Your task to perform on an android device: toggle pop-ups in chrome Image 0: 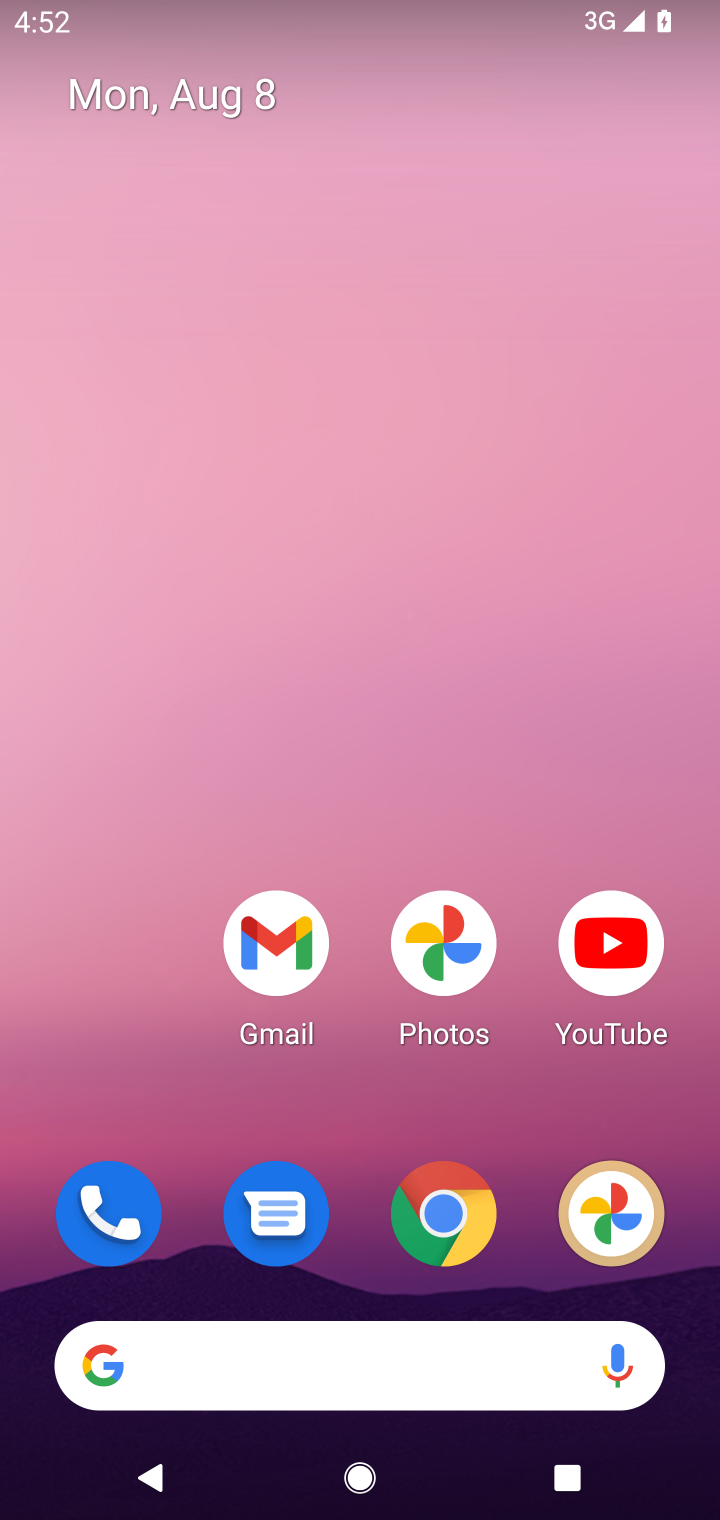
Step 0: click (440, 1241)
Your task to perform on an android device: toggle pop-ups in chrome Image 1: 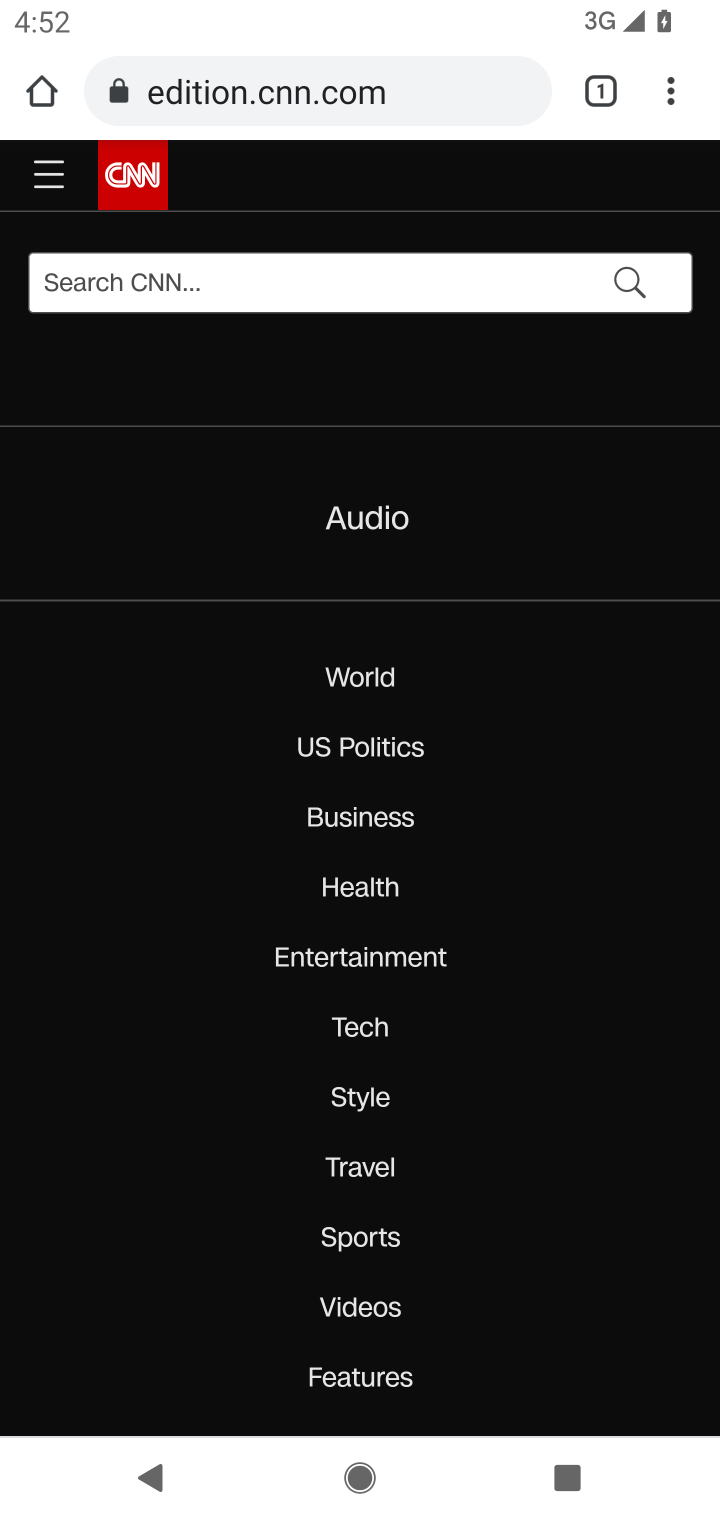
Step 1: click (681, 63)
Your task to perform on an android device: toggle pop-ups in chrome Image 2: 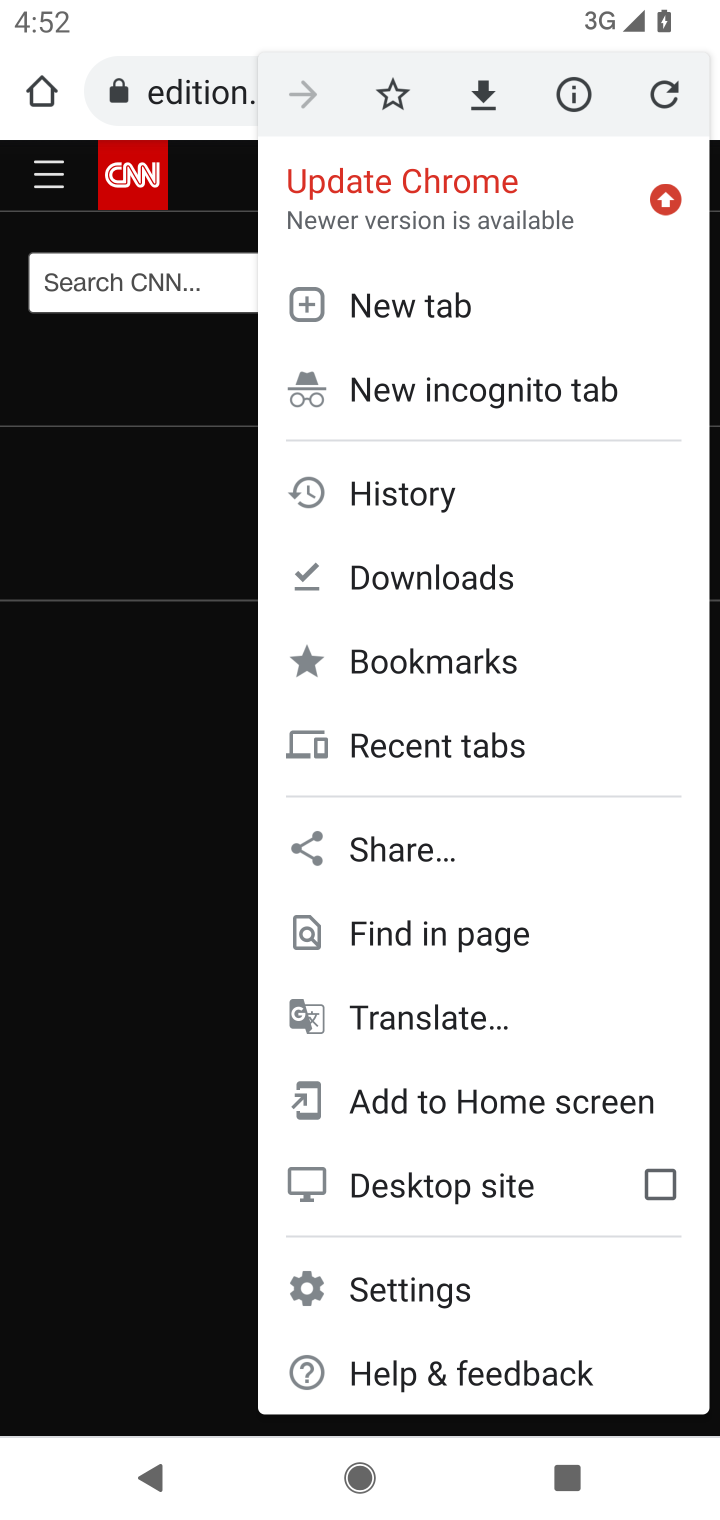
Step 2: click (379, 1286)
Your task to perform on an android device: toggle pop-ups in chrome Image 3: 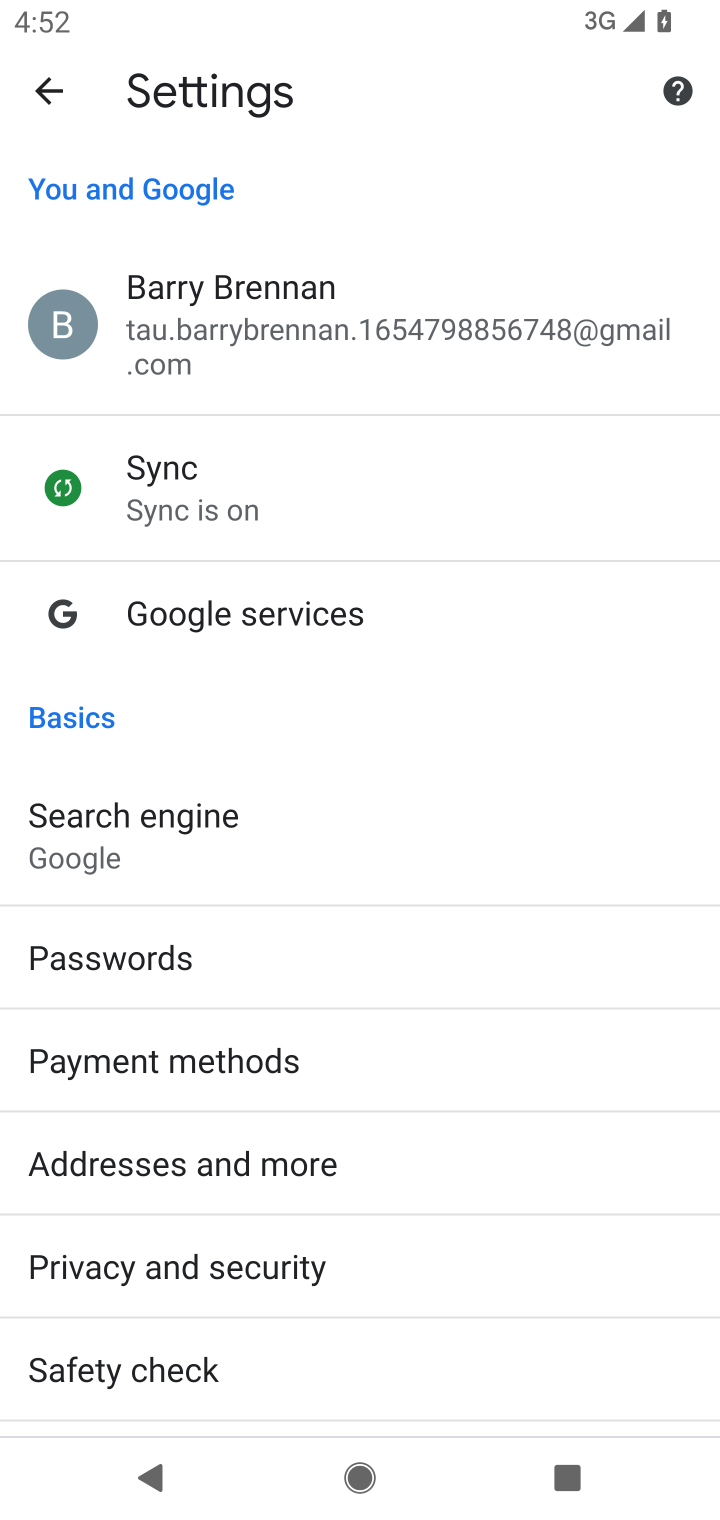
Step 3: drag from (307, 1109) to (307, 471)
Your task to perform on an android device: toggle pop-ups in chrome Image 4: 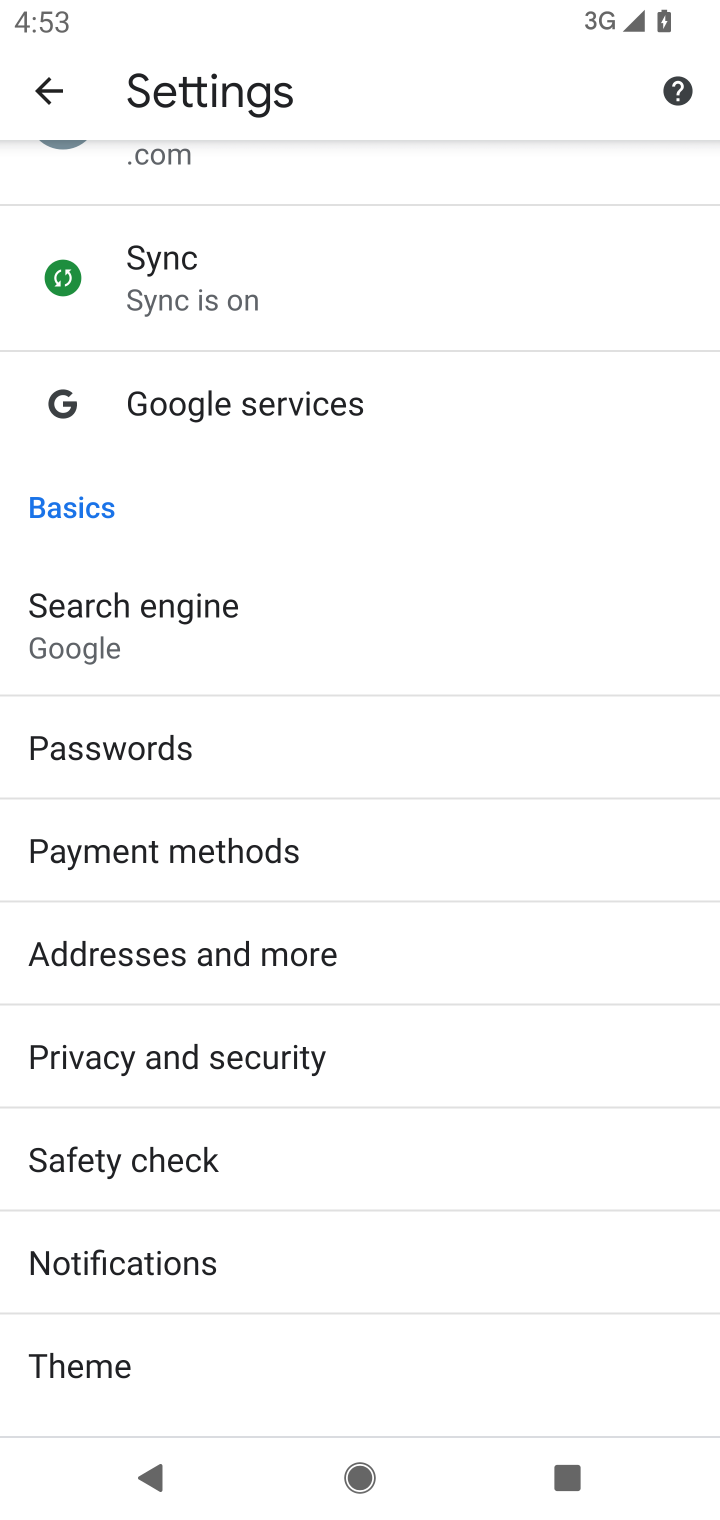
Step 4: drag from (367, 1320) to (324, 607)
Your task to perform on an android device: toggle pop-ups in chrome Image 5: 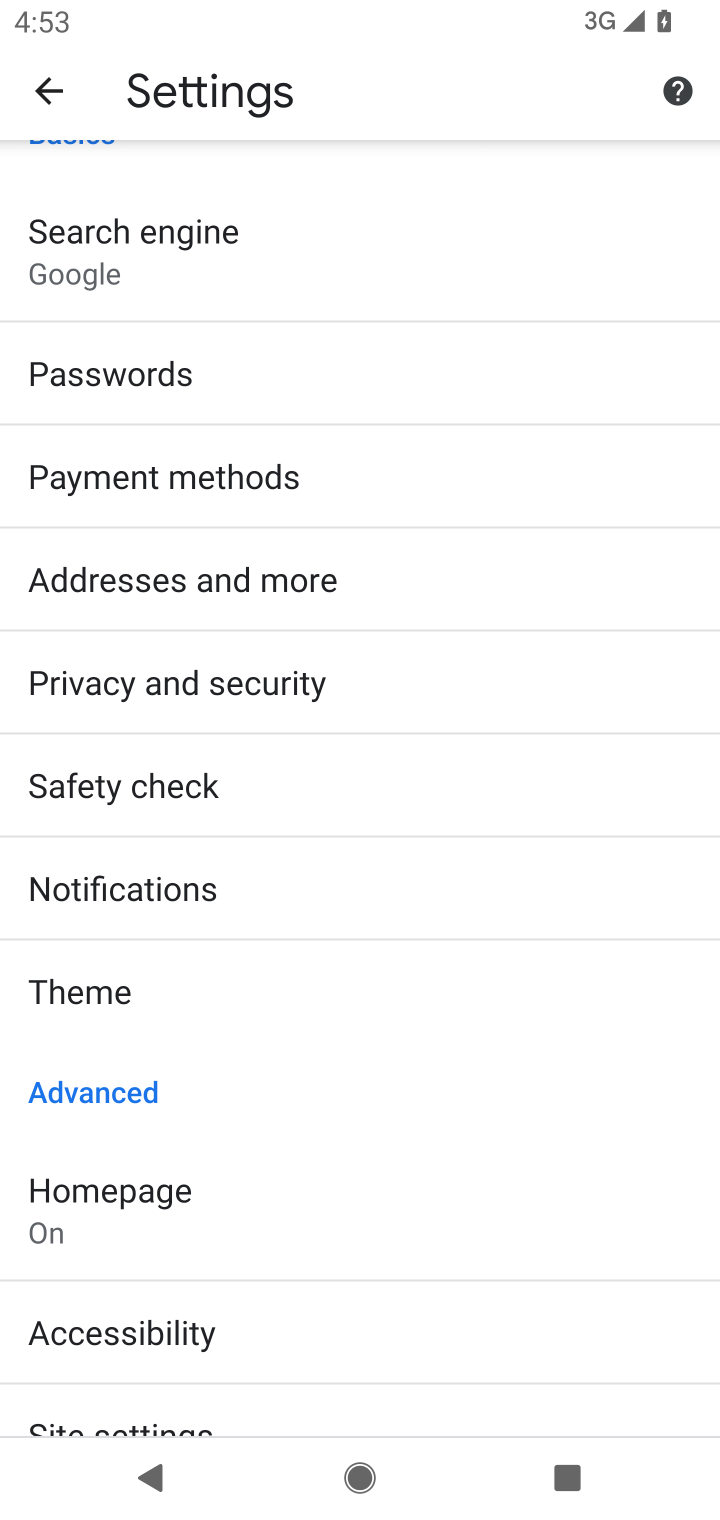
Step 5: click (282, 1418)
Your task to perform on an android device: toggle pop-ups in chrome Image 6: 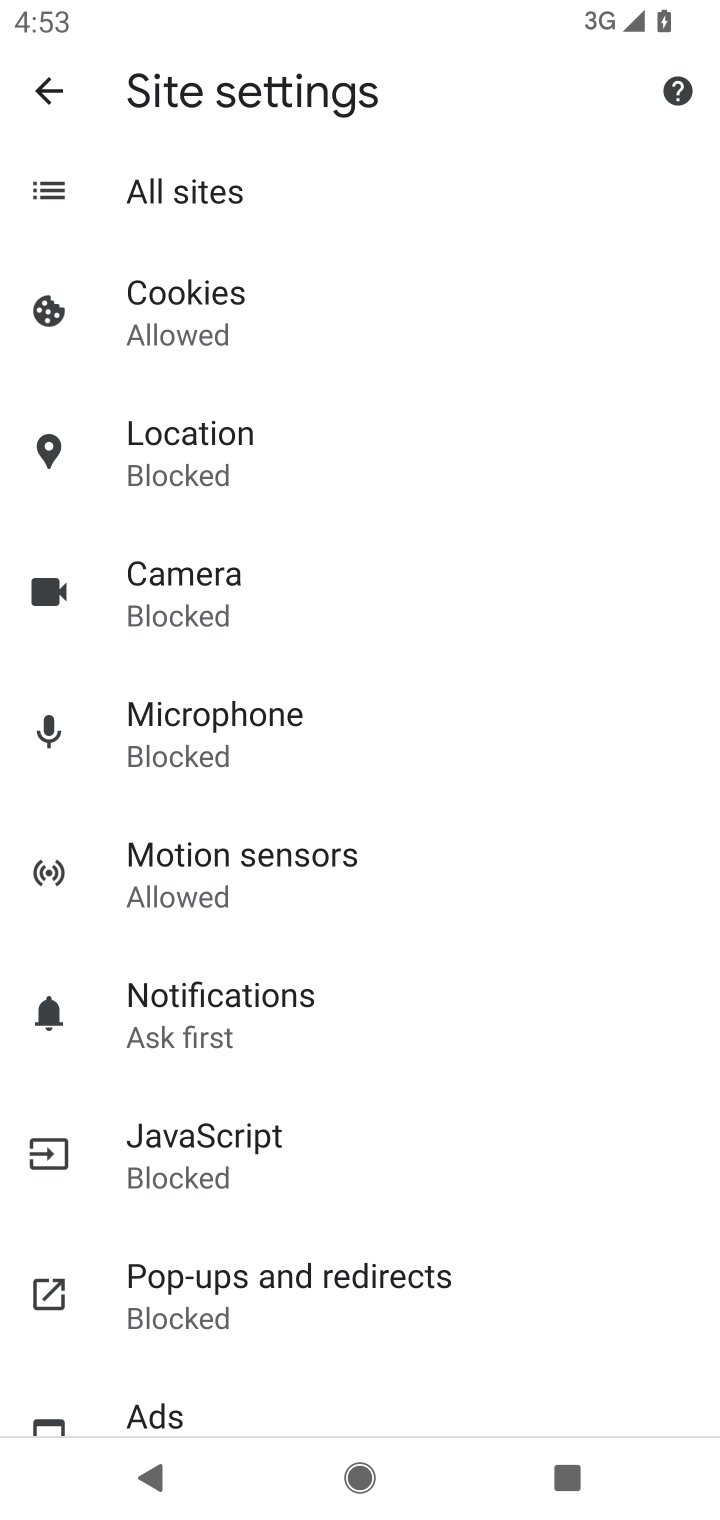
Step 6: click (230, 1279)
Your task to perform on an android device: toggle pop-ups in chrome Image 7: 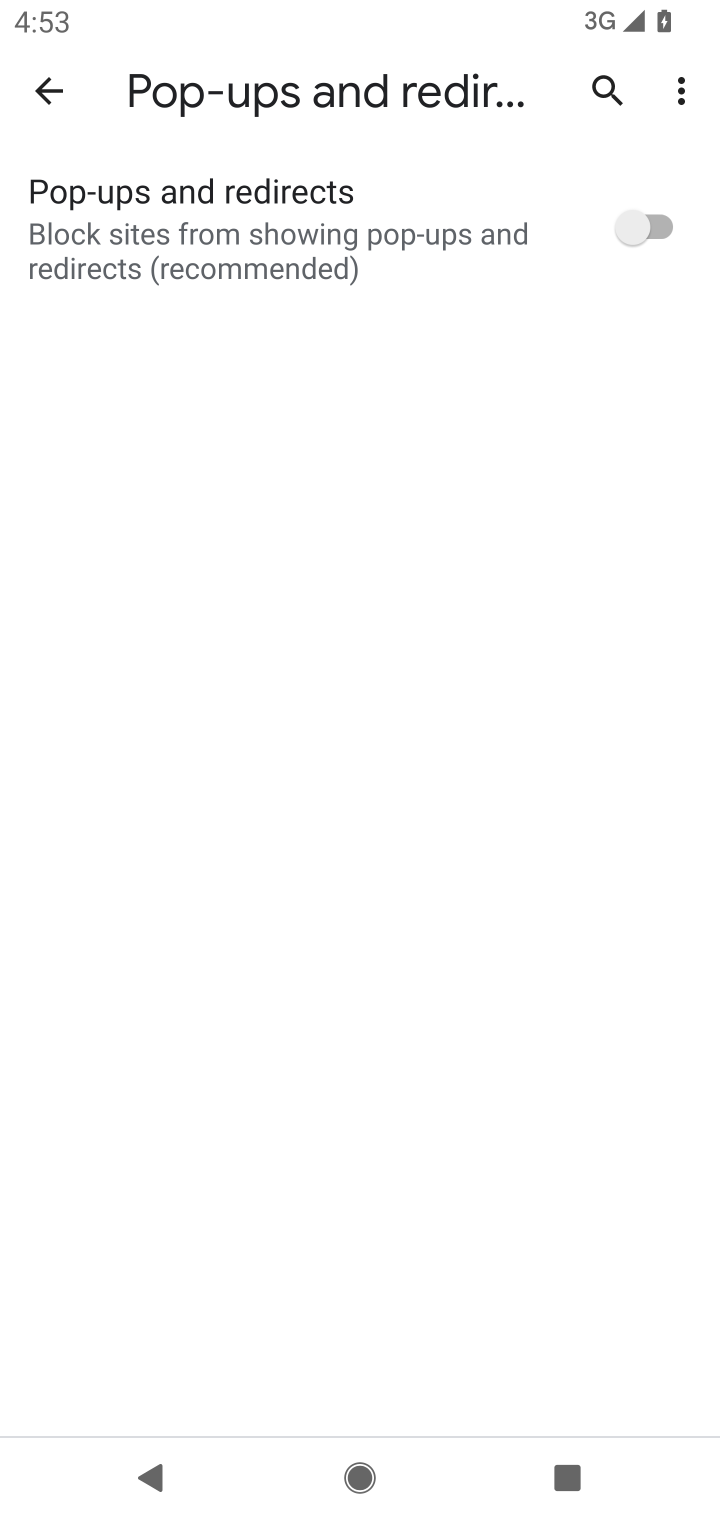
Step 7: click (652, 234)
Your task to perform on an android device: toggle pop-ups in chrome Image 8: 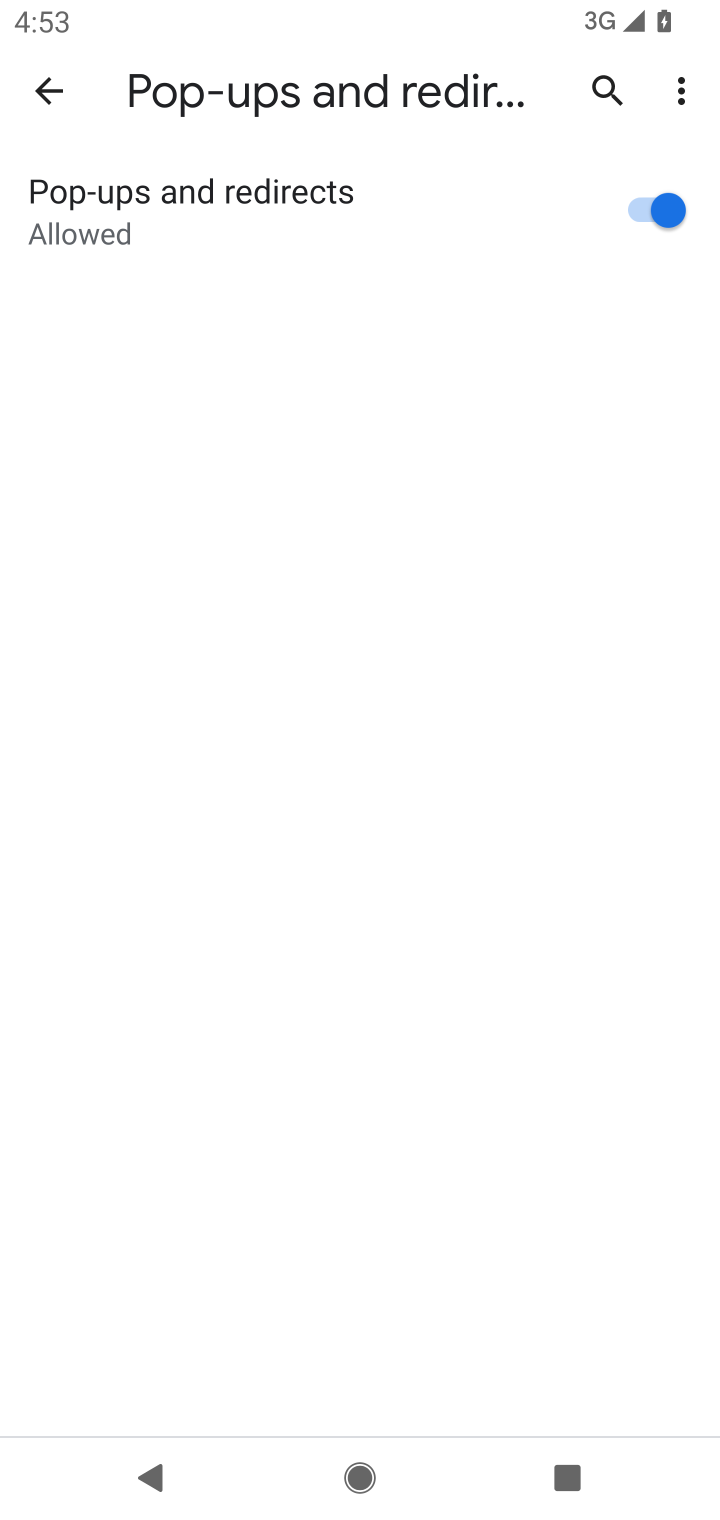
Step 8: task complete